Your task to perform on an android device: turn off airplane mode Image 0: 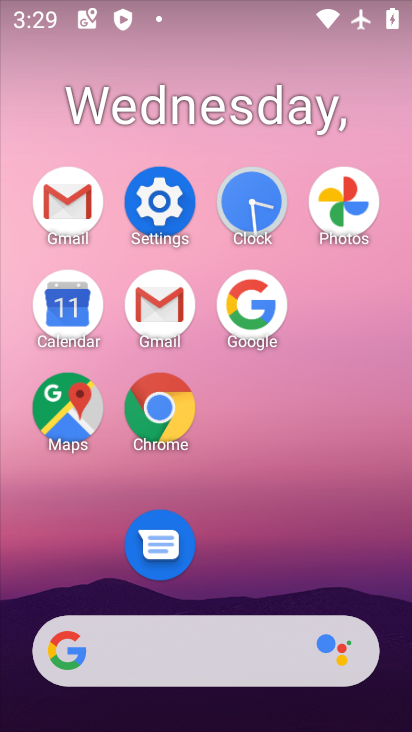
Step 0: click (151, 200)
Your task to perform on an android device: turn off airplane mode Image 1: 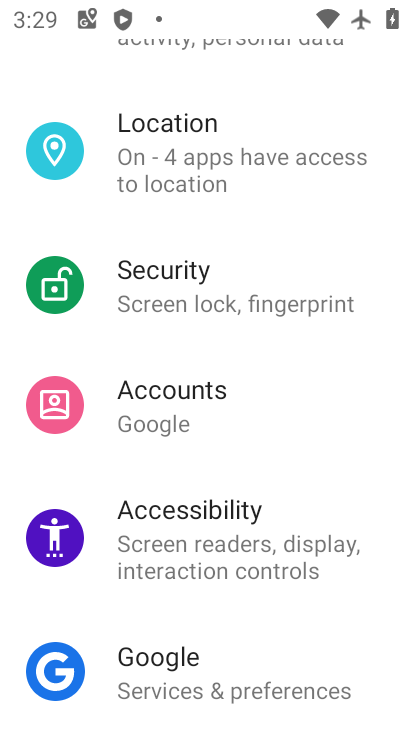
Step 1: drag from (326, 94) to (353, 523)
Your task to perform on an android device: turn off airplane mode Image 2: 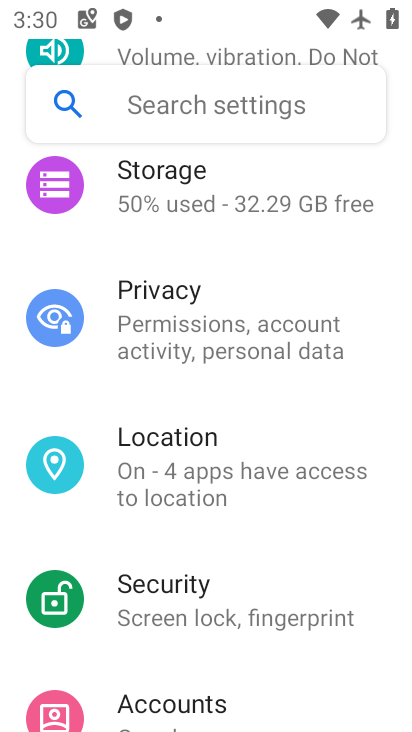
Step 2: drag from (320, 151) to (352, 658)
Your task to perform on an android device: turn off airplane mode Image 3: 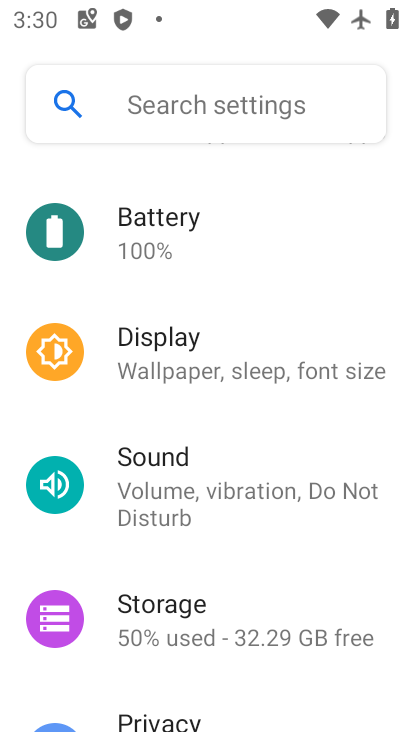
Step 3: drag from (272, 149) to (296, 574)
Your task to perform on an android device: turn off airplane mode Image 4: 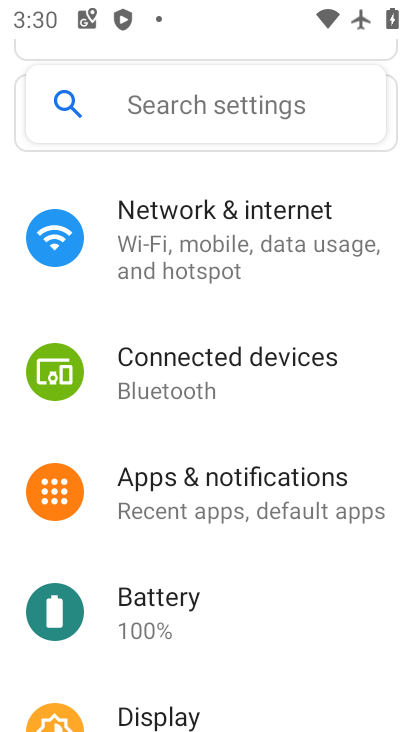
Step 4: click (245, 224)
Your task to perform on an android device: turn off airplane mode Image 5: 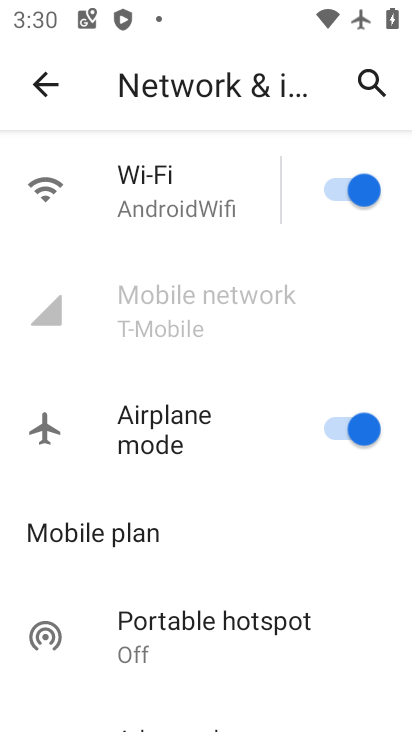
Step 5: click (358, 422)
Your task to perform on an android device: turn off airplane mode Image 6: 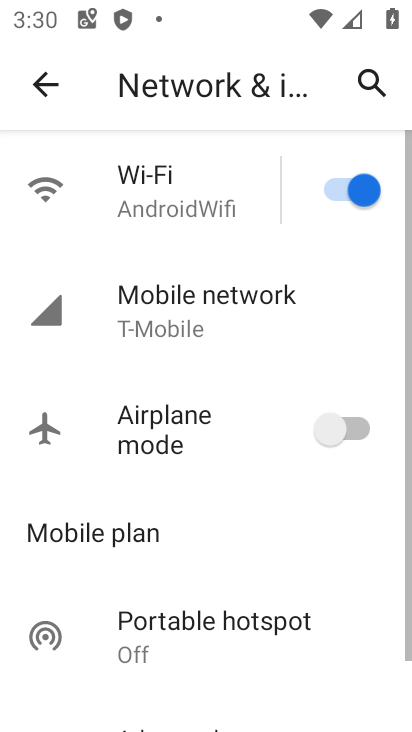
Step 6: task complete